Your task to perform on an android device: toggle show notifications on the lock screen Image 0: 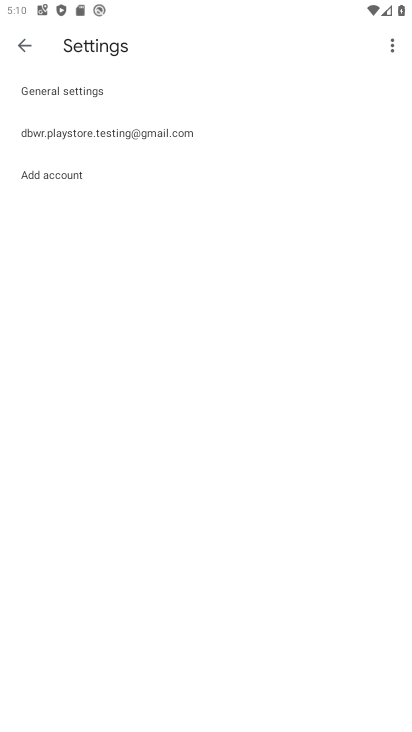
Step 0: press back button
Your task to perform on an android device: toggle show notifications on the lock screen Image 1: 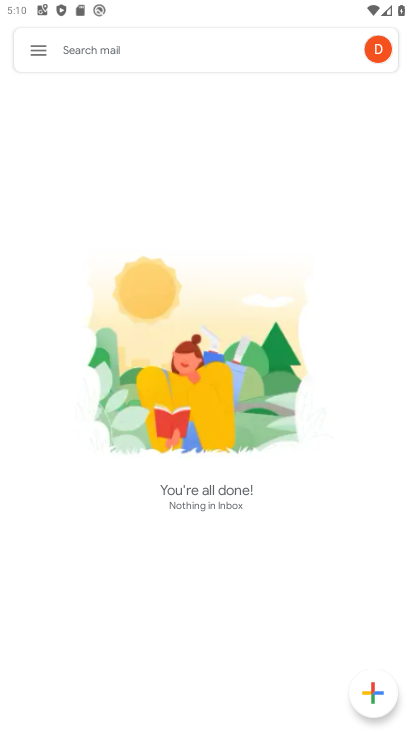
Step 1: press back button
Your task to perform on an android device: toggle show notifications on the lock screen Image 2: 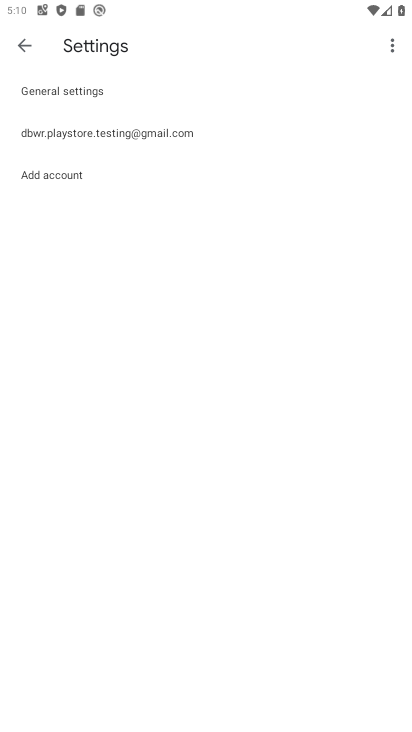
Step 2: press back button
Your task to perform on an android device: toggle show notifications on the lock screen Image 3: 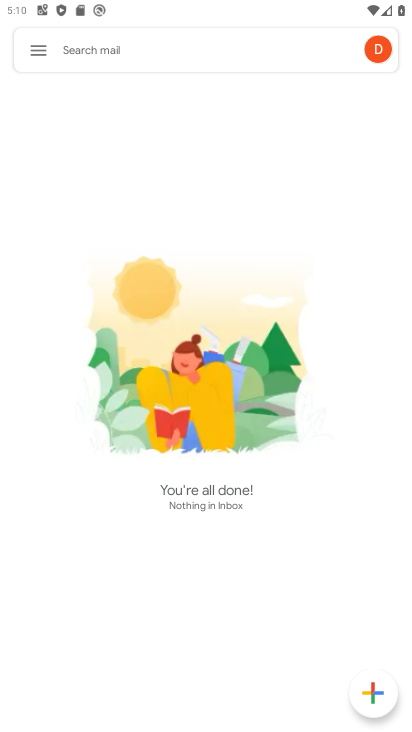
Step 3: press back button
Your task to perform on an android device: toggle show notifications on the lock screen Image 4: 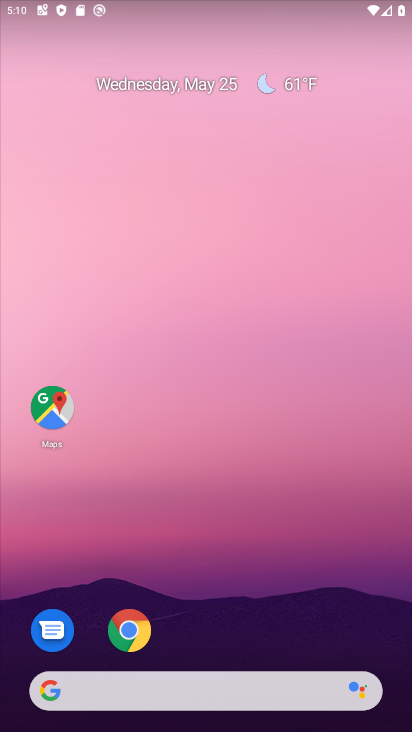
Step 4: drag from (238, 603) to (312, 48)
Your task to perform on an android device: toggle show notifications on the lock screen Image 5: 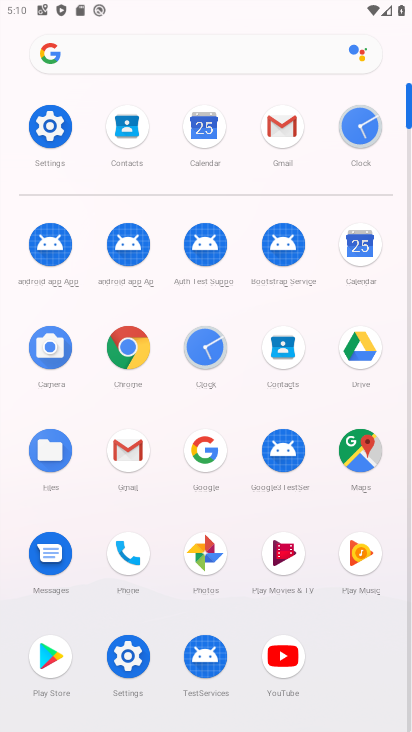
Step 5: click (50, 129)
Your task to perform on an android device: toggle show notifications on the lock screen Image 6: 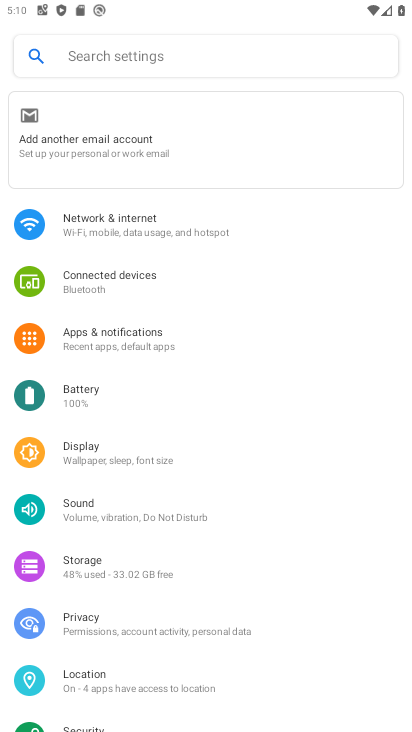
Step 6: click (150, 335)
Your task to perform on an android device: toggle show notifications on the lock screen Image 7: 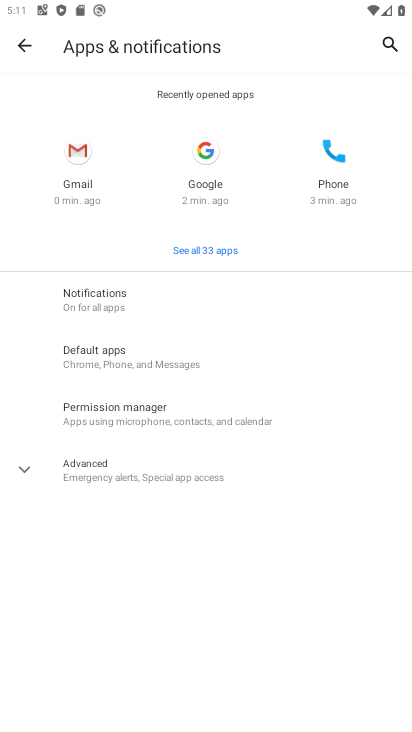
Step 7: click (117, 294)
Your task to perform on an android device: toggle show notifications on the lock screen Image 8: 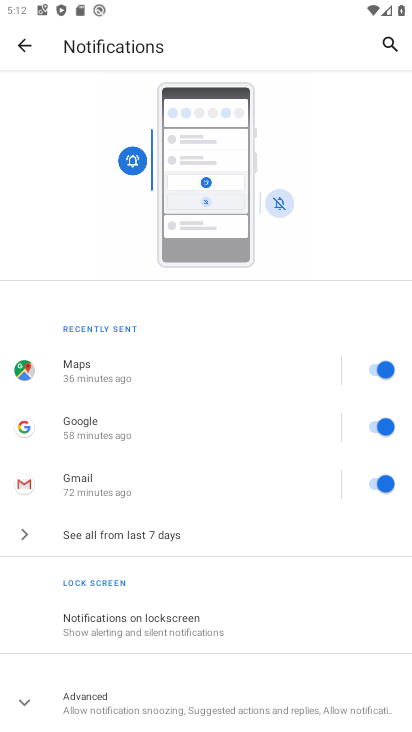
Step 8: click (161, 628)
Your task to perform on an android device: toggle show notifications on the lock screen Image 9: 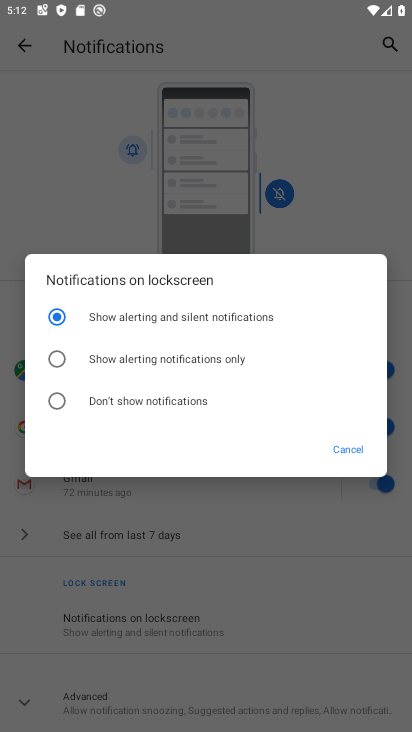
Step 9: click (59, 314)
Your task to perform on an android device: toggle show notifications on the lock screen Image 10: 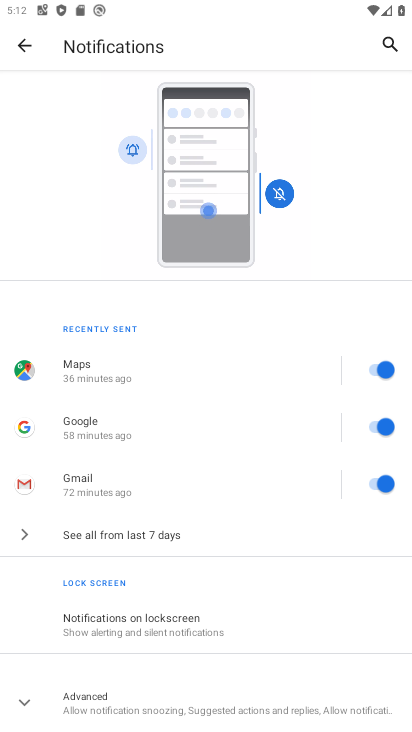
Step 10: task complete